Your task to perform on an android device: move a message to another label in the gmail app Image 0: 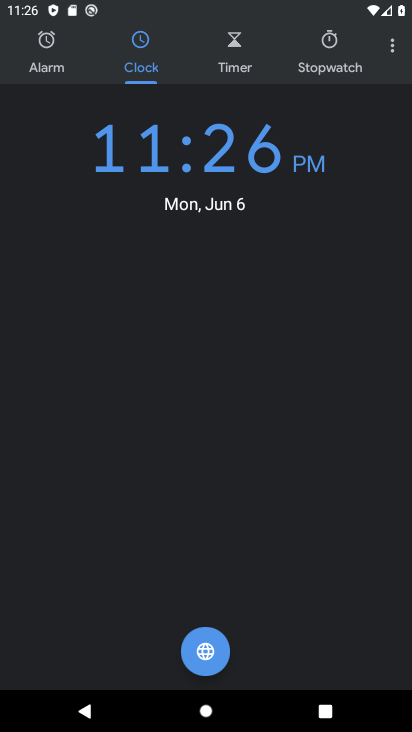
Step 0: press back button
Your task to perform on an android device: move a message to another label in the gmail app Image 1: 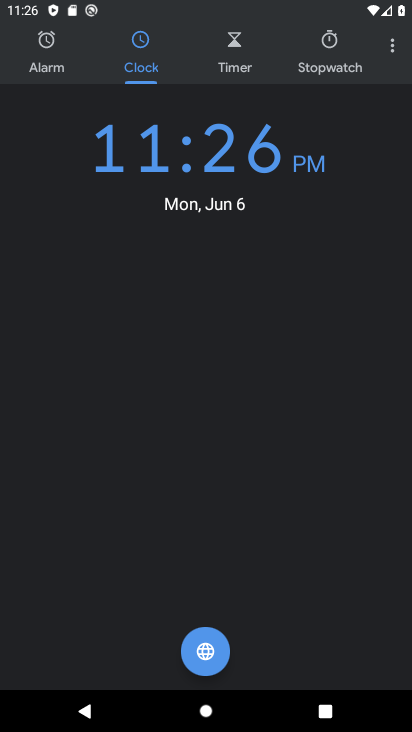
Step 1: press home button
Your task to perform on an android device: move a message to another label in the gmail app Image 2: 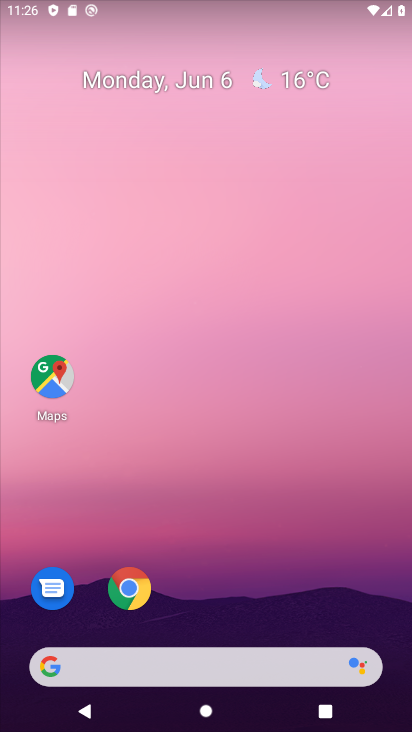
Step 2: drag from (382, 654) to (186, 43)
Your task to perform on an android device: move a message to another label in the gmail app Image 3: 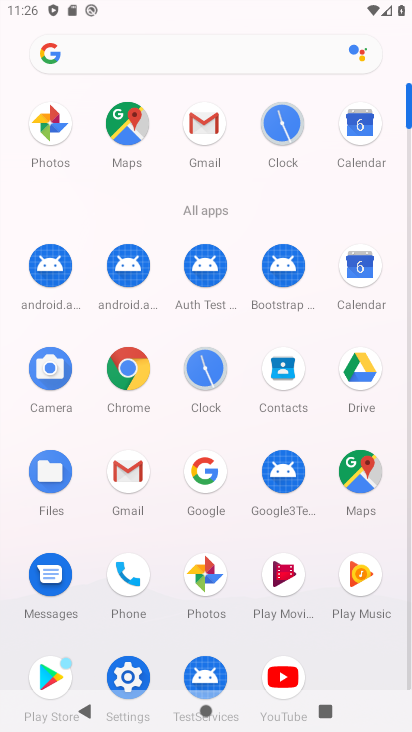
Step 3: click (128, 470)
Your task to perform on an android device: move a message to another label in the gmail app Image 4: 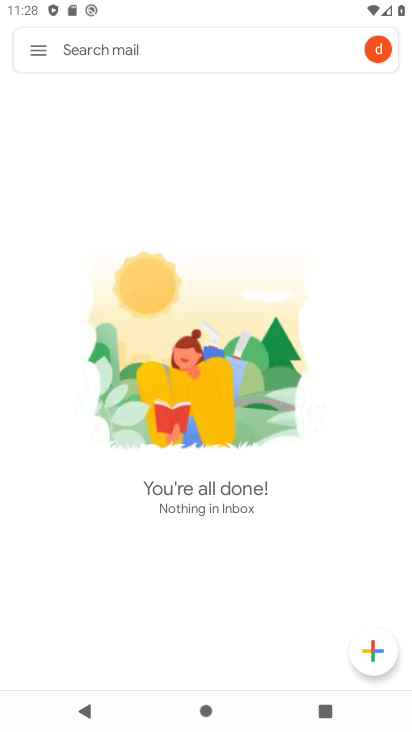
Step 4: task complete